Your task to perform on an android device: toggle sleep mode Image 0: 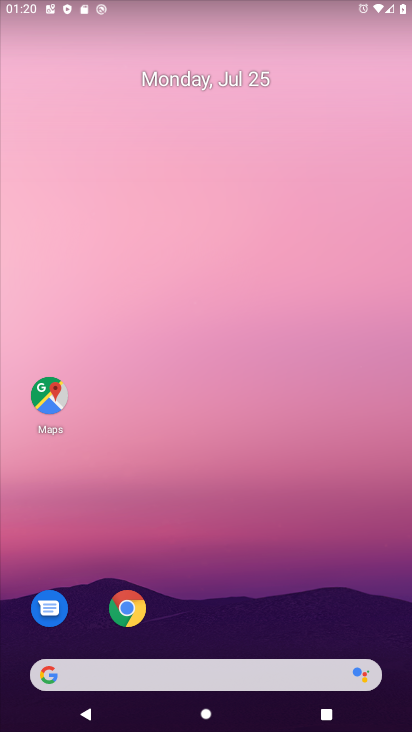
Step 0: drag from (211, 669) to (241, 128)
Your task to perform on an android device: toggle sleep mode Image 1: 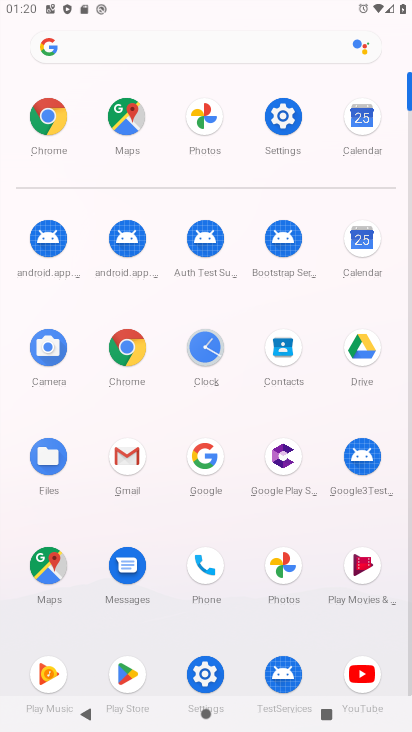
Step 1: click (294, 118)
Your task to perform on an android device: toggle sleep mode Image 2: 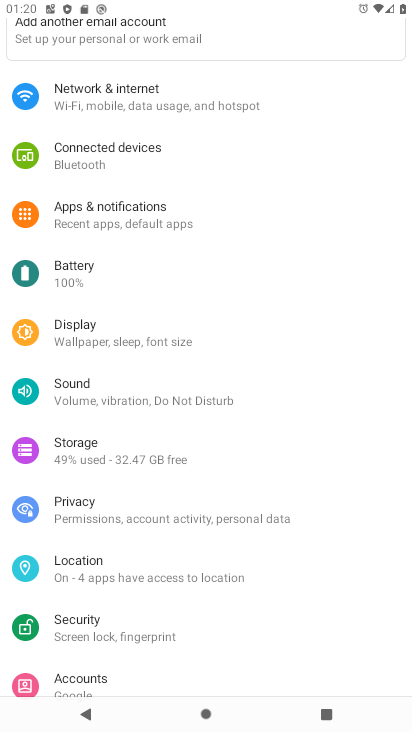
Step 2: task complete